Your task to perform on an android device: Open Google Chrome and click the shortcut for Amazon.com Image 0: 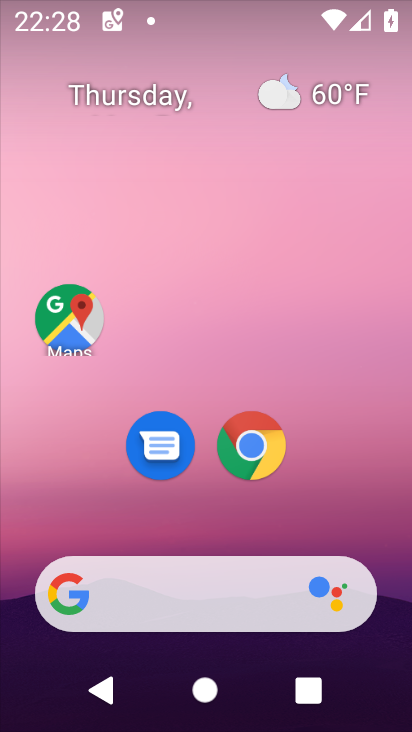
Step 0: click (251, 463)
Your task to perform on an android device: Open Google Chrome and click the shortcut for Amazon.com Image 1: 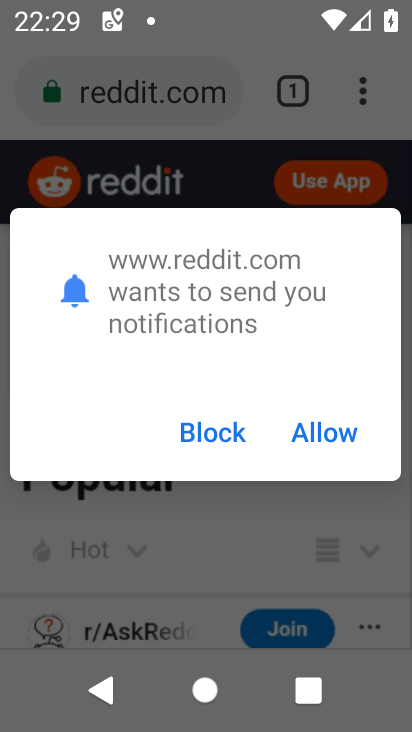
Step 1: press home button
Your task to perform on an android device: Open Google Chrome and click the shortcut for Amazon.com Image 2: 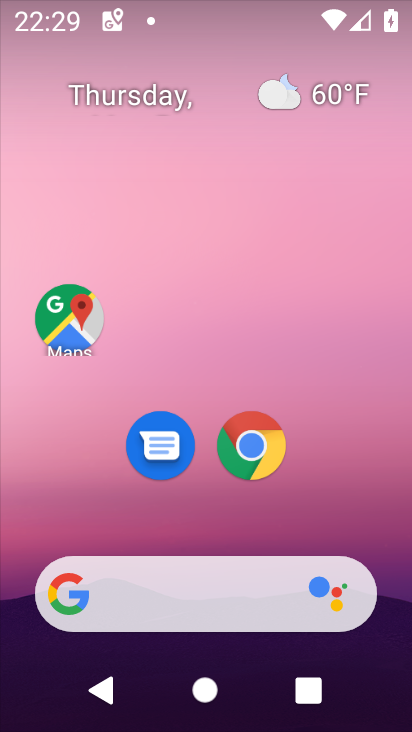
Step 2: click (249, 464)
Your task to perform on an android device: Open Google Chrome and click the shortcut for Amazon.com Image 3: 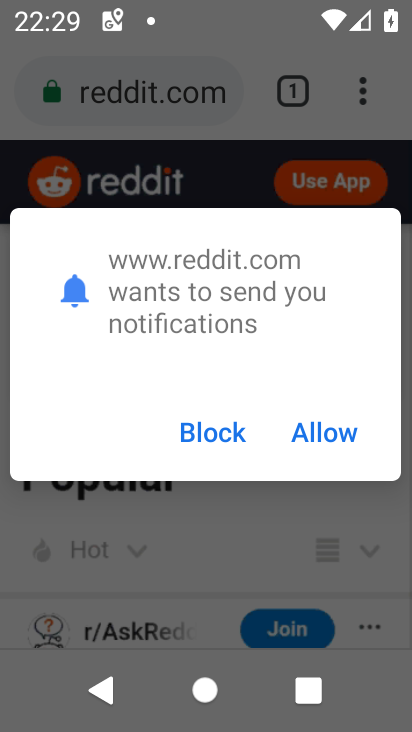
Step 3: click (325, 427)
Your task to perform on an android device: Open Google Chrome and click the shortcut for Amazon.com Image 4: 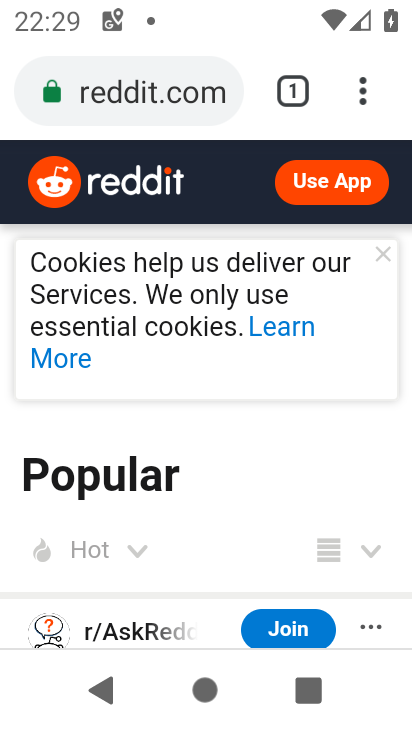
Step 4: click (277, 94)
Your task to perform on an android device: Open Google Chrome and click the shortcut for Amazon.com Image 5: 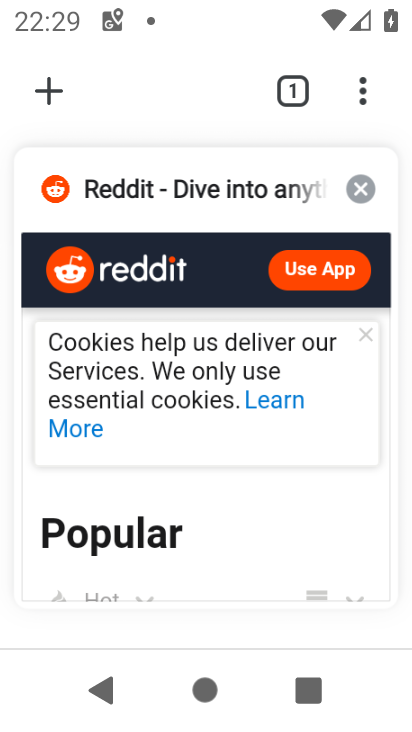
Step 5: click (47, 103)
Your task to perform on an android device: Open Google Chrome and click the shortcut for Amazon.com Image 6: 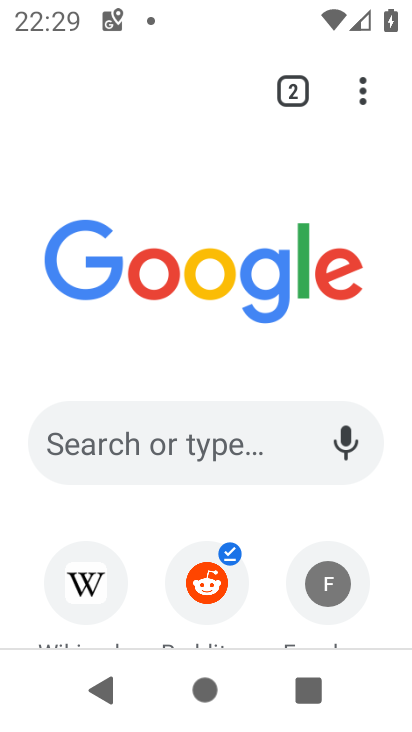
Step 6: drag from (253, 651) to (304, 314)
Your task to perform on an android device: Open Google Chrome and click the shortcut for Amazon.com Image 7: 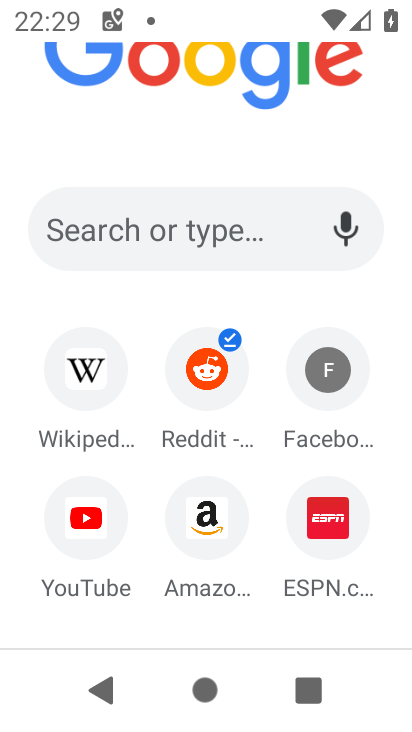
Step 7: click (220, 542)
Your task to perform on an android device: Open Google Chrome and click the shortcut for Amazon.com Image 8: 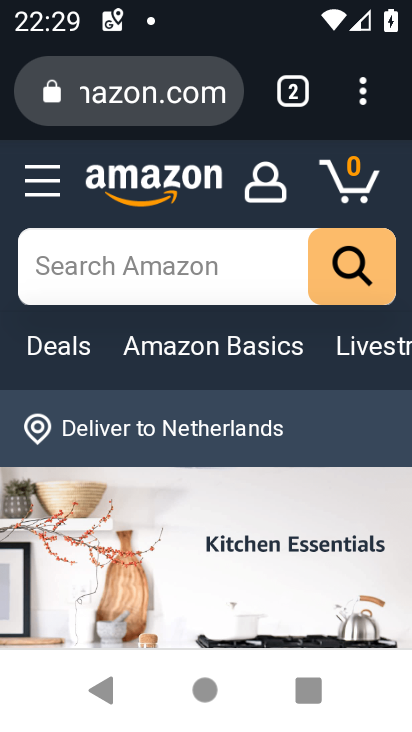
Step 8: task complete